Your task to perform on an android device: all mails in gmail Image 0: 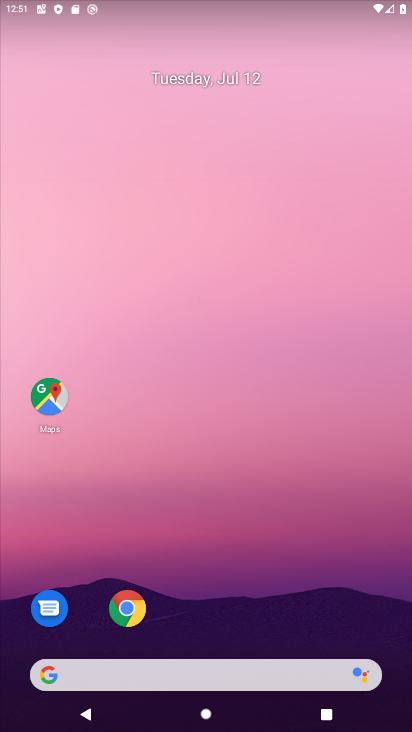
Step 0: drag from (247, 471) to (235, 162)
Your task to perform on an android device: all mails in gmail Image 1: 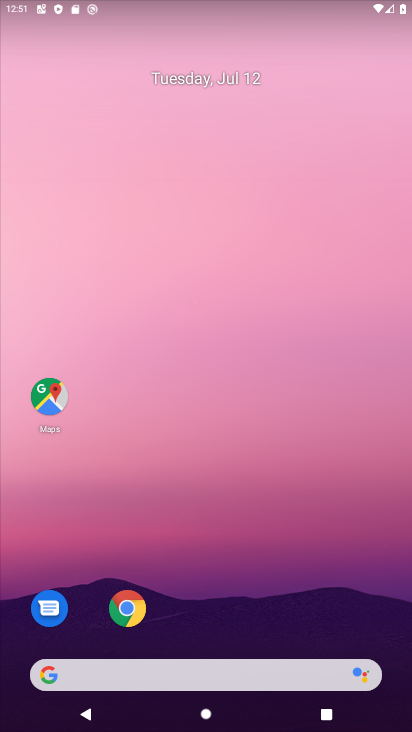
Step 1: drag from (222, 599) to (233, 151)
Your task to perform on an android device: all mails in gmail Image 2: 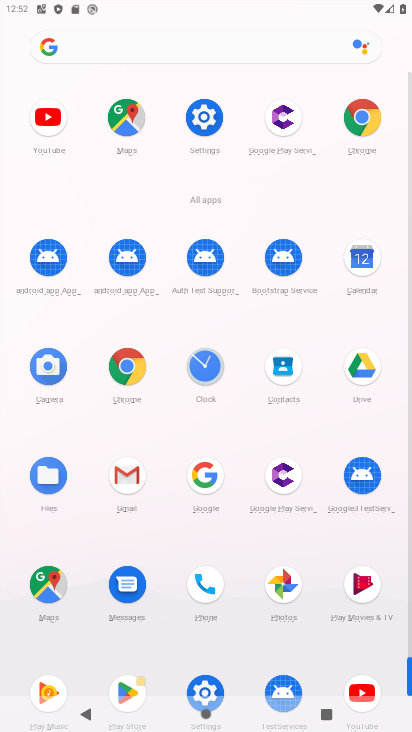
Step 2: click (106, 475)
Your task to perform on an android device: all mails in gmail Image 3: 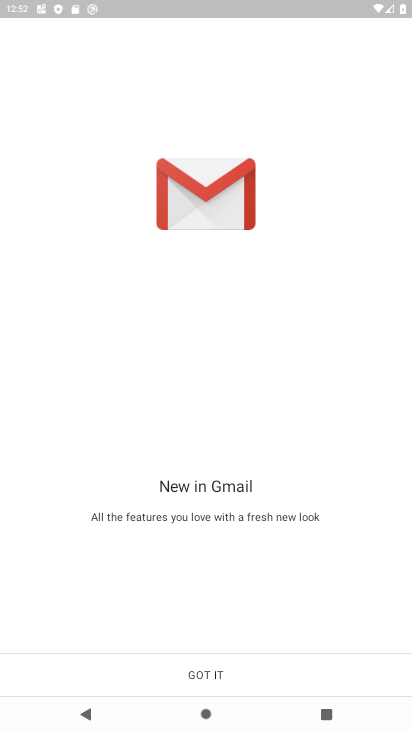
Step 3: click (258, 678)
Your task to perform on an android device: all mails in gmail Image 4: 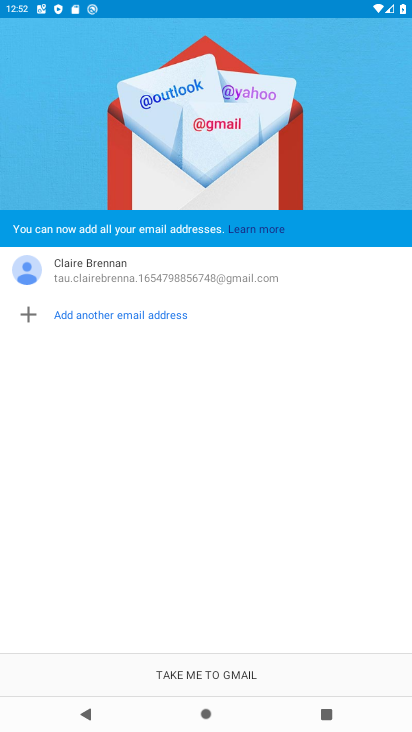
Step 4: click (235, 671)
Your task to perform on an android device: all mails in gmail Image 5: 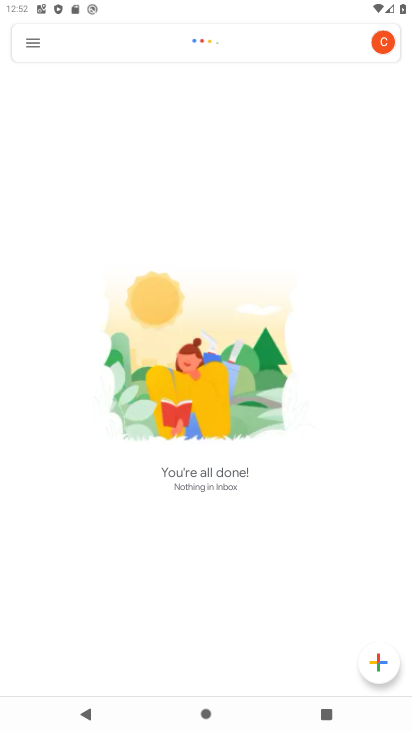
Step 5: click (16, 33)
Your task to perform on an android device: all mails in gmail Image 6: 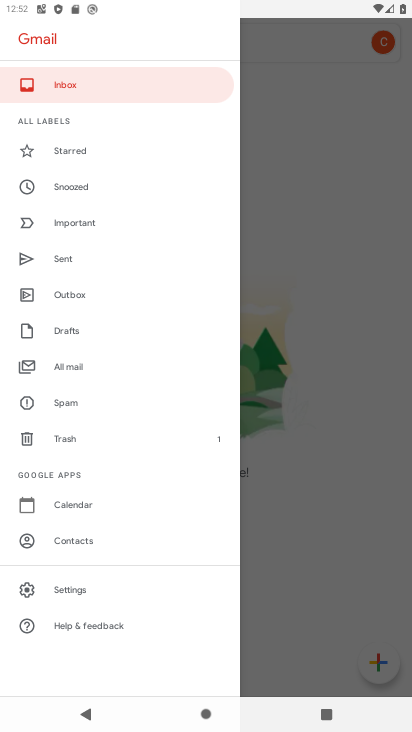
Step 6: click (43, 365)
Your task to perform on an android device: all mails in gmail Image 7: 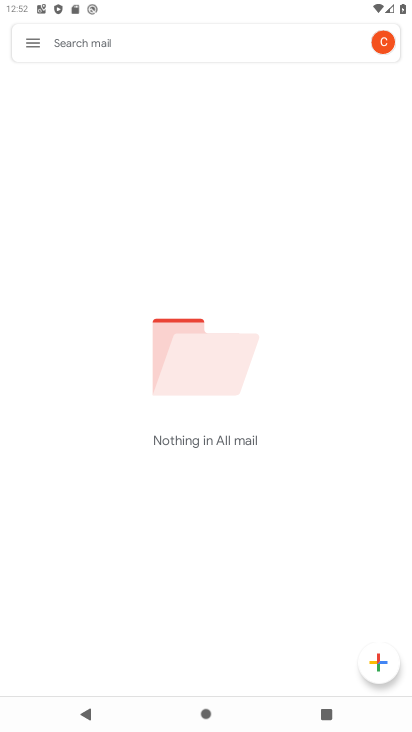
Step 7: task complete